Your task to perform on an android device: turn off location Image 0: 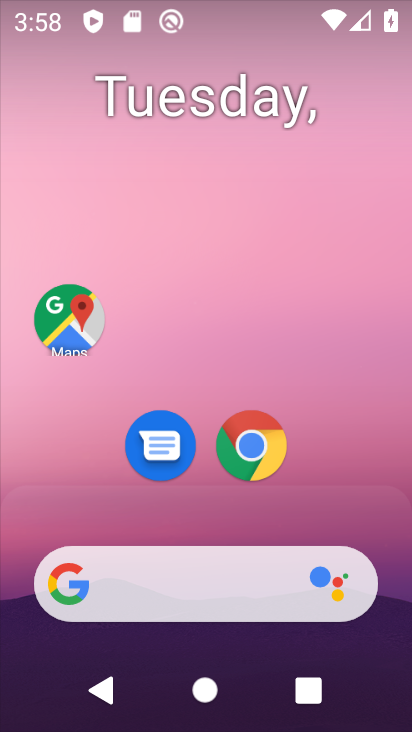
Step 0: drag from (372, 531) to (377, 158)
Your task to perform on an android device: turn off location Image 1: 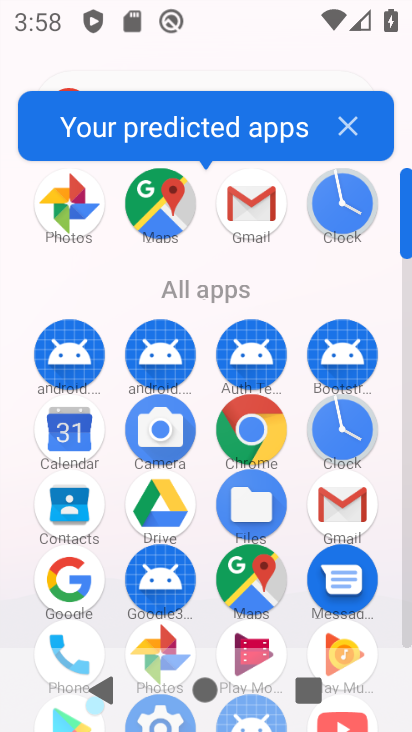
Step 1: drag from (385, 648) to (374, 406)
Your task to perform on an android device: turn off location Image 2: 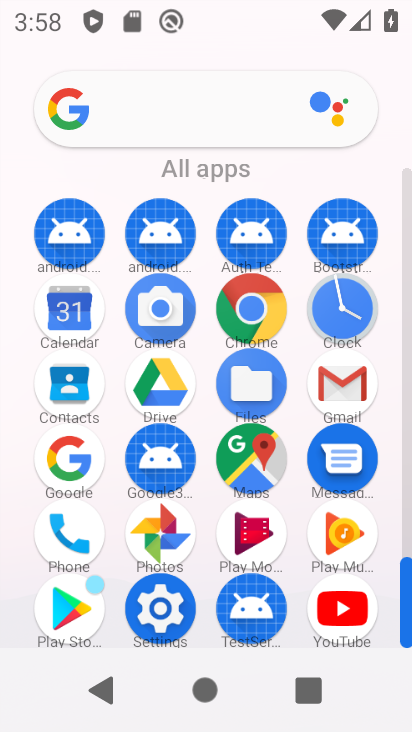
Step 2: click (162, 623)
Your task to perform on an android device: turn off location Image 3: 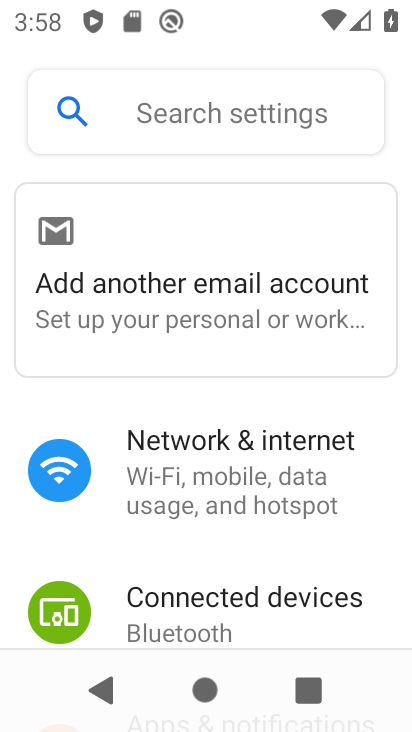
Step 3: drag from (264, 551) to (276, 320)
Your task to perform on an android device: turn off location Image 4: 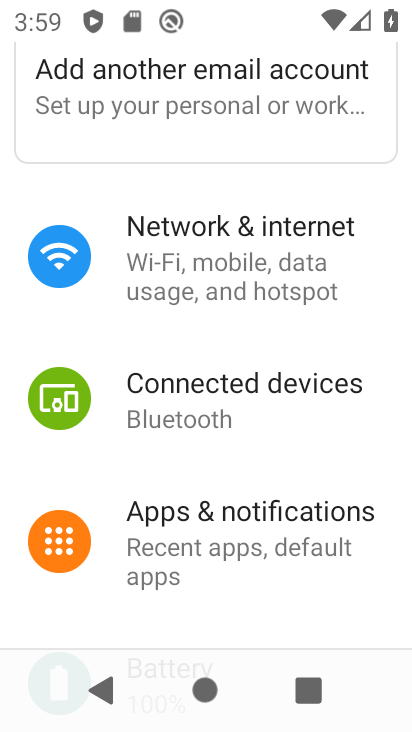
Step 4: drag from (351, 585) to (344, 318)
Your task to perform on an android device: turn off location Image 5: 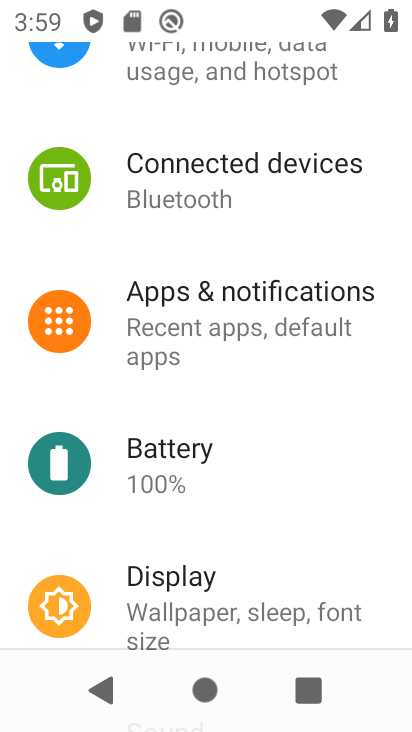
Step 5: drag from (339, 534) to (352, 378)
Your task to perform on an android device: turn off location Image 6: 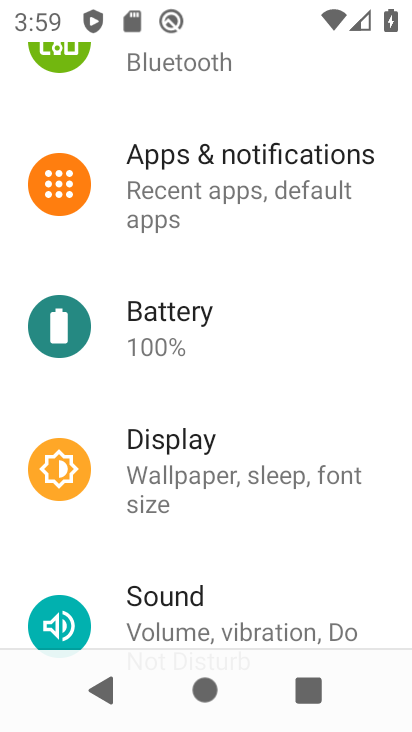
Step 6: drag from (349, 567) to (354, 388)
Your task to perform on an android device: turn off location Image 7: 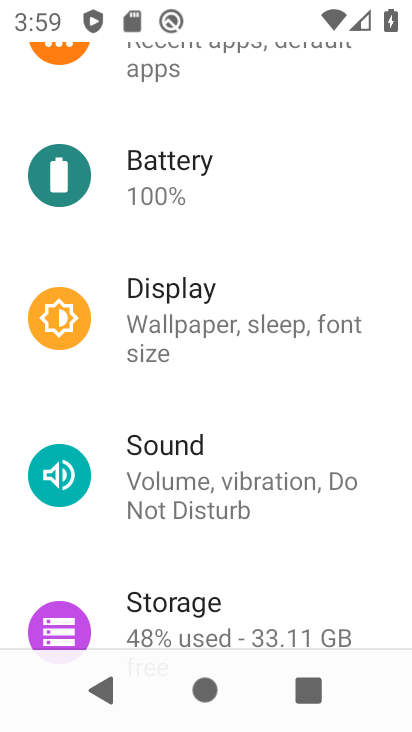
Step 7: drag from (363, 551) to (349, 368)
Your task to perform on an android device: turn off location Image 8: 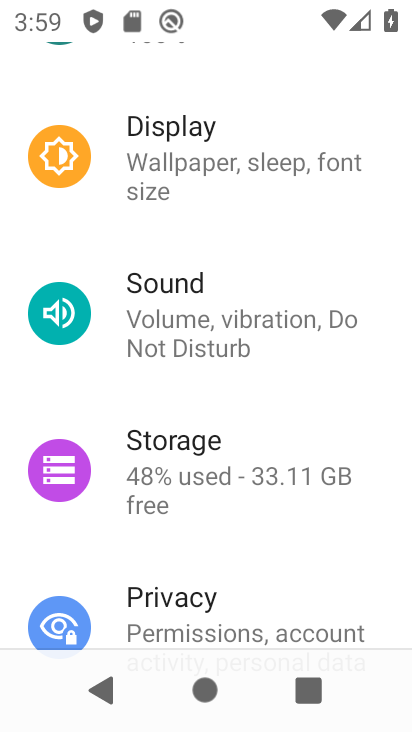
Step 8: drag from (336, 562) to (341, 381)
Your task to perform on an android device: turn off location Image 9: 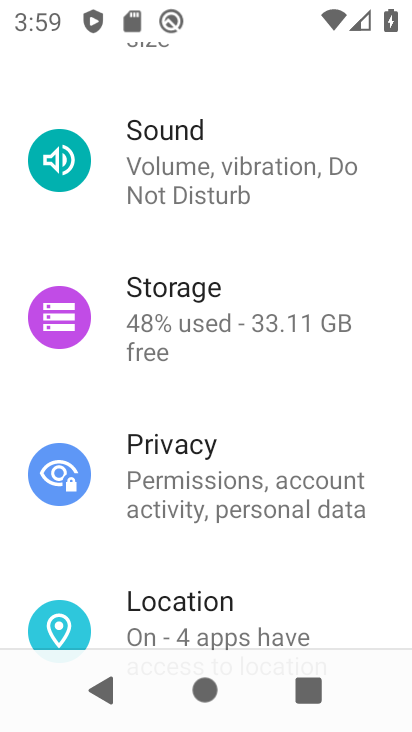
Step 9: drag from (342, 566) to (355, 362)
Your task to perform on an android device: turn off location Image 10: 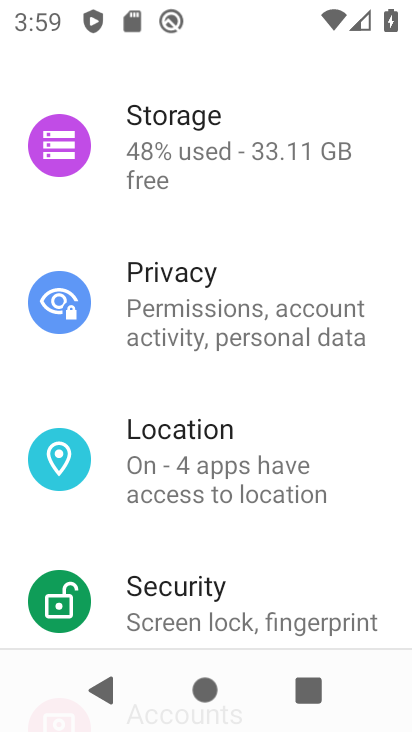
Step 10: click (305, 462)
Your task to perform on an android device: turn off location Image 11: 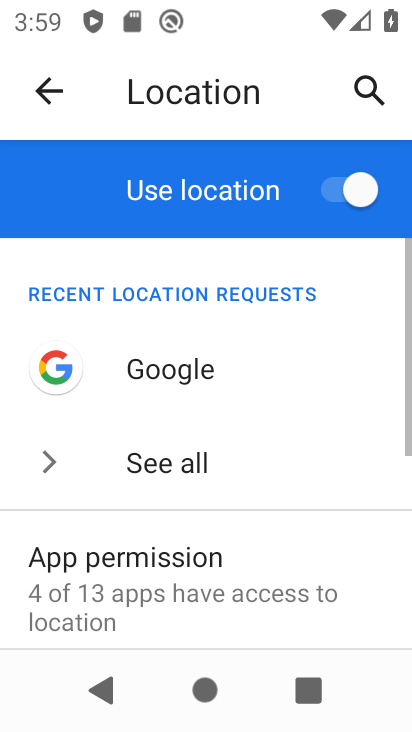
Step 11: click (348, 179)
Your task to perform on an android device: turn off location Image 12: 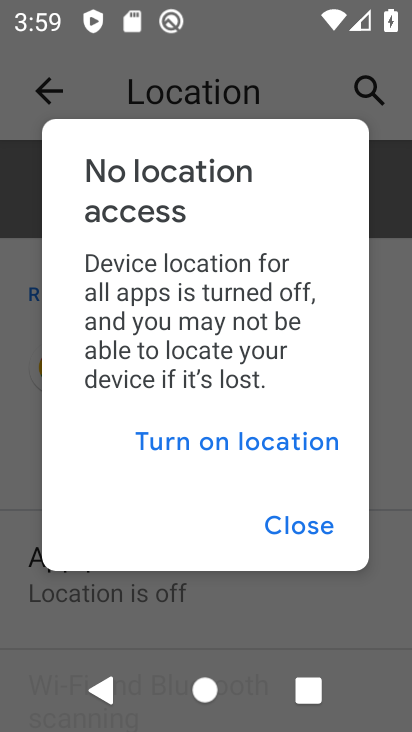
Step 12: task complete